Your task to perform on an android device: View the shopping cart on bestbuy.com. Search for "razer blade" on bestbuy.com, select the first entry, add it to the cart, then select checkout. Image 0: 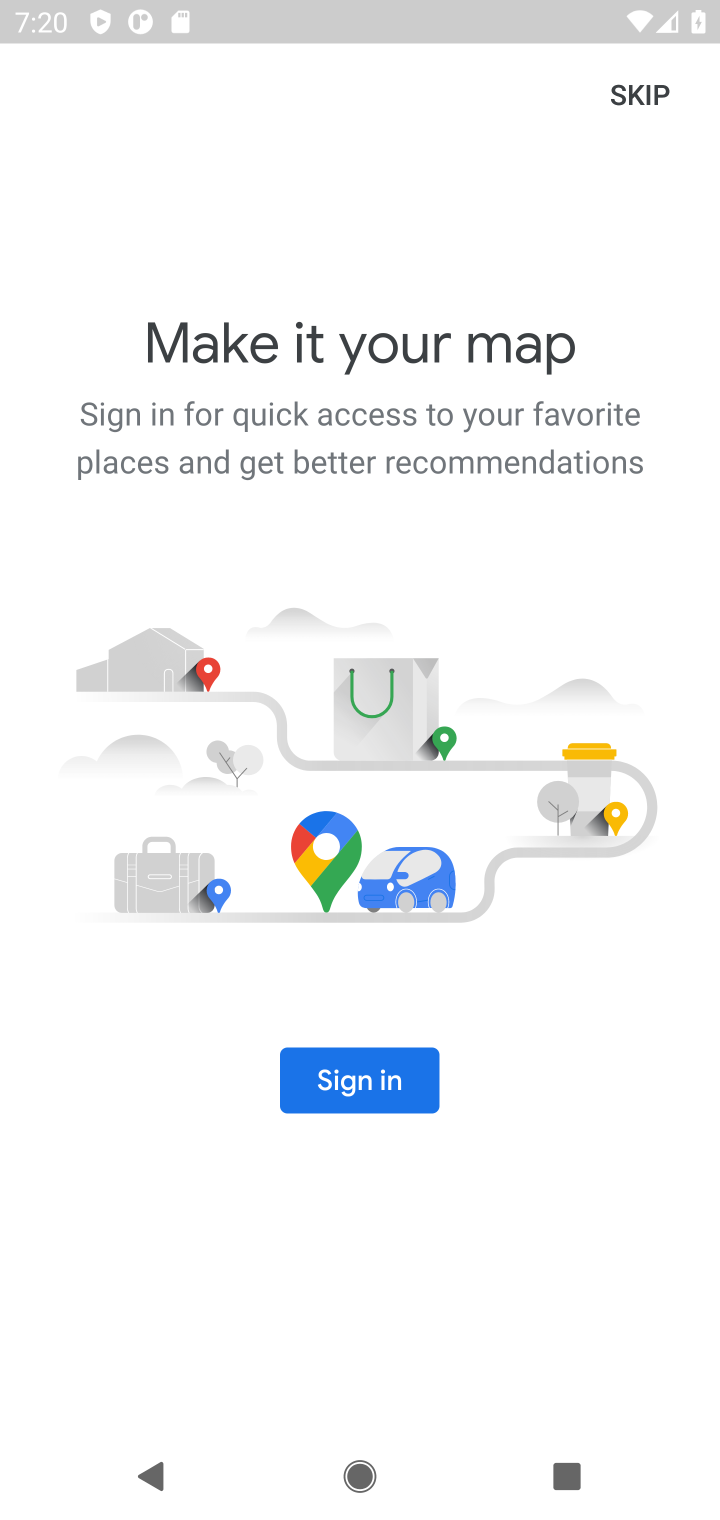
Step 0: press home button
Your task to perform on an android device: View the shopping cart on bestbuy.com. Search for "razer blade" on bestbuy.com, select the first entry, add it to the cart, then select checkout. Image 1: 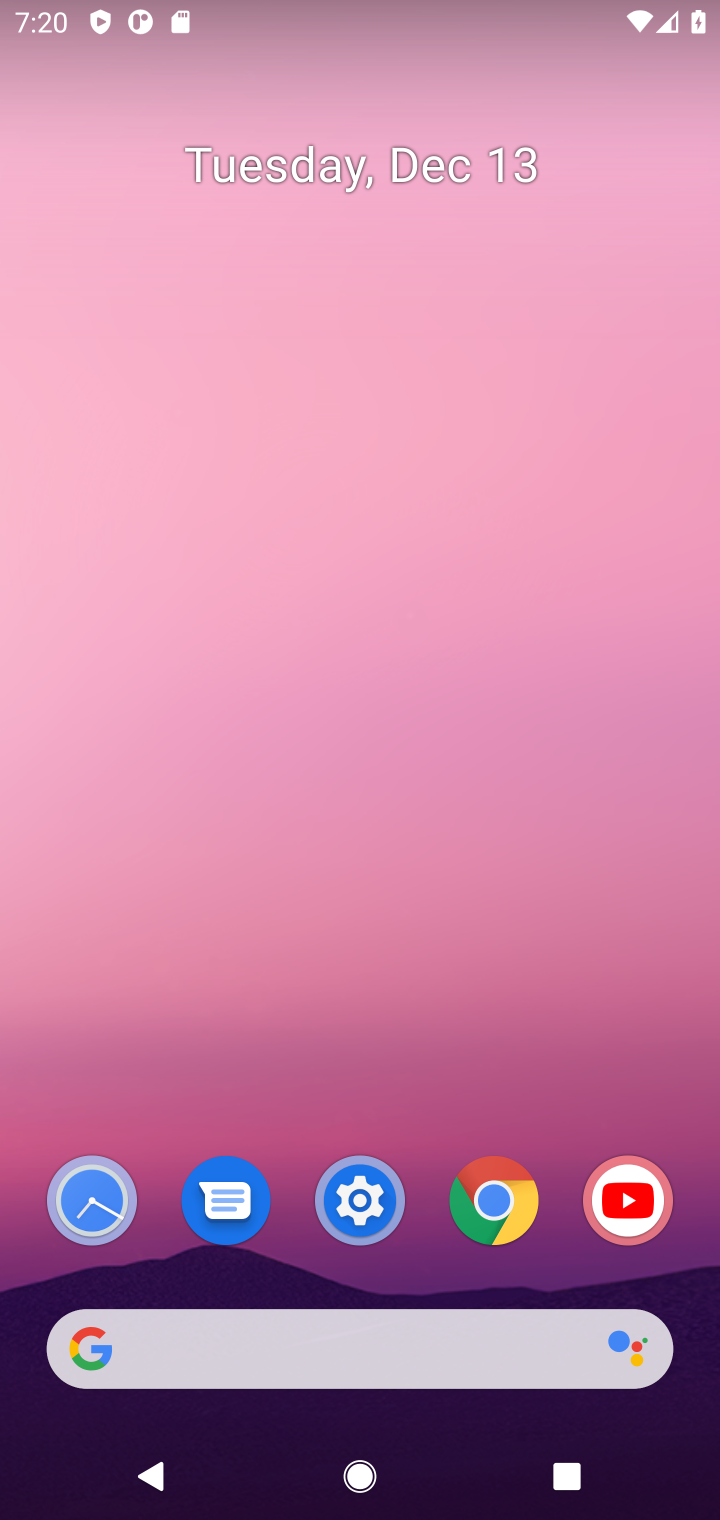
Step 1: drag from (321, 1180) to (322, 391)
Your task to perform on an android device: View the shopping cart on bestbuy.com. Search for "razer blade" on bestbuy.com, select the first entry, add it to the cart, then select checkout. Image 2: 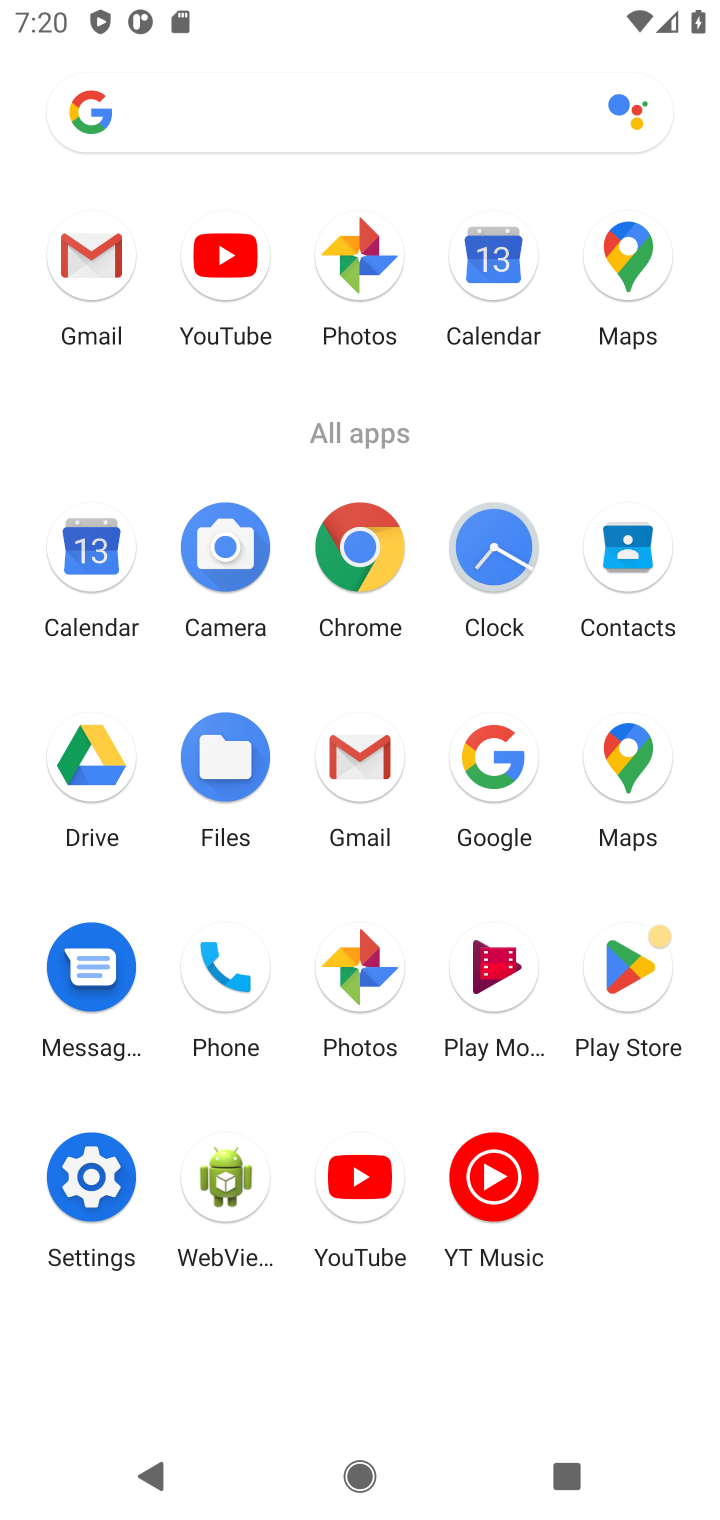
Step 2: click (364, 612)
Your task to perform on an android device: View the shopping cart on bestbuy.com. Search for "razer blade" on bestbuy.com, select the first entry, add it to the cart, then select checkout. Image 3: 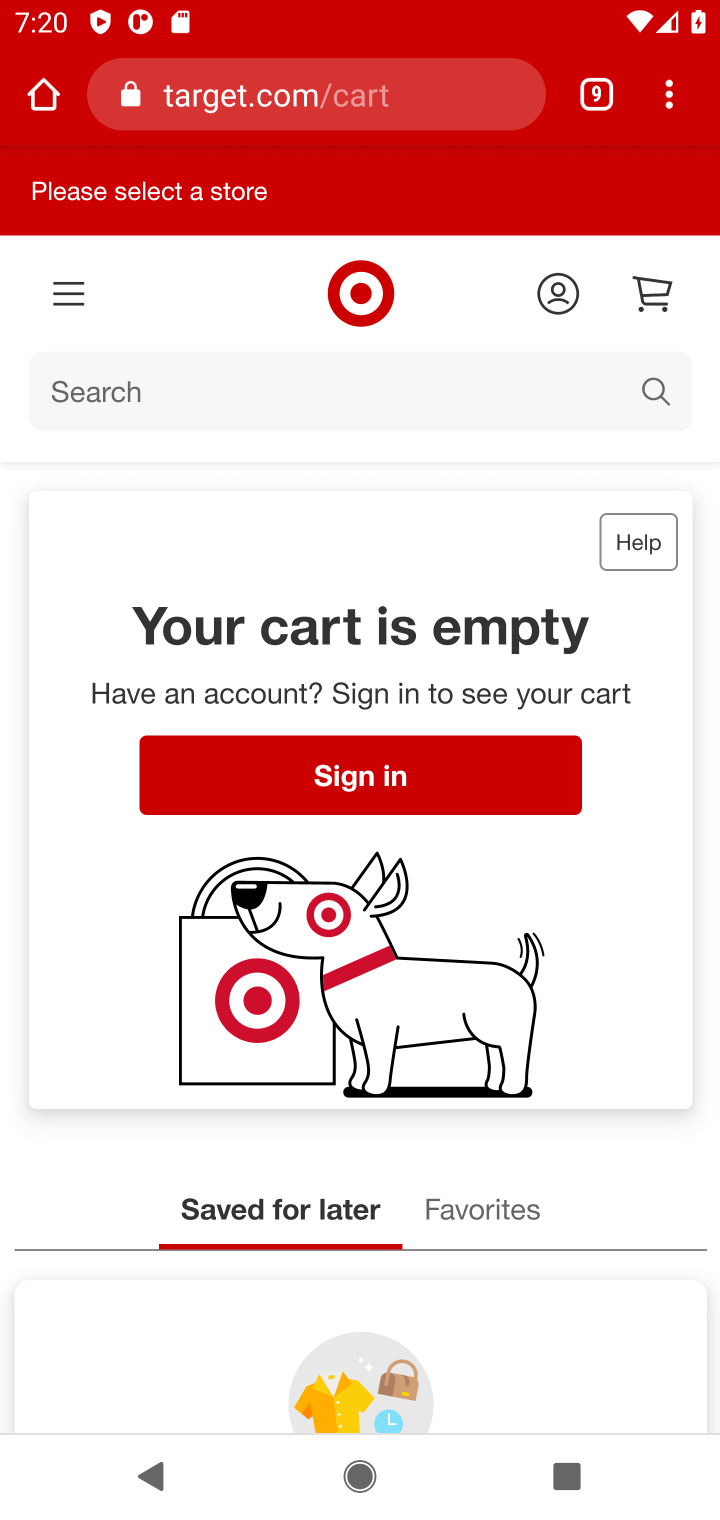
Step 3: click (295, 112)
Your task to perform on an android device: View the shopping cart on bestbuy.com. Search for "razer blade" on bestbuy.com, select the first entry, add it to the cart, then select checkout. Image 4: 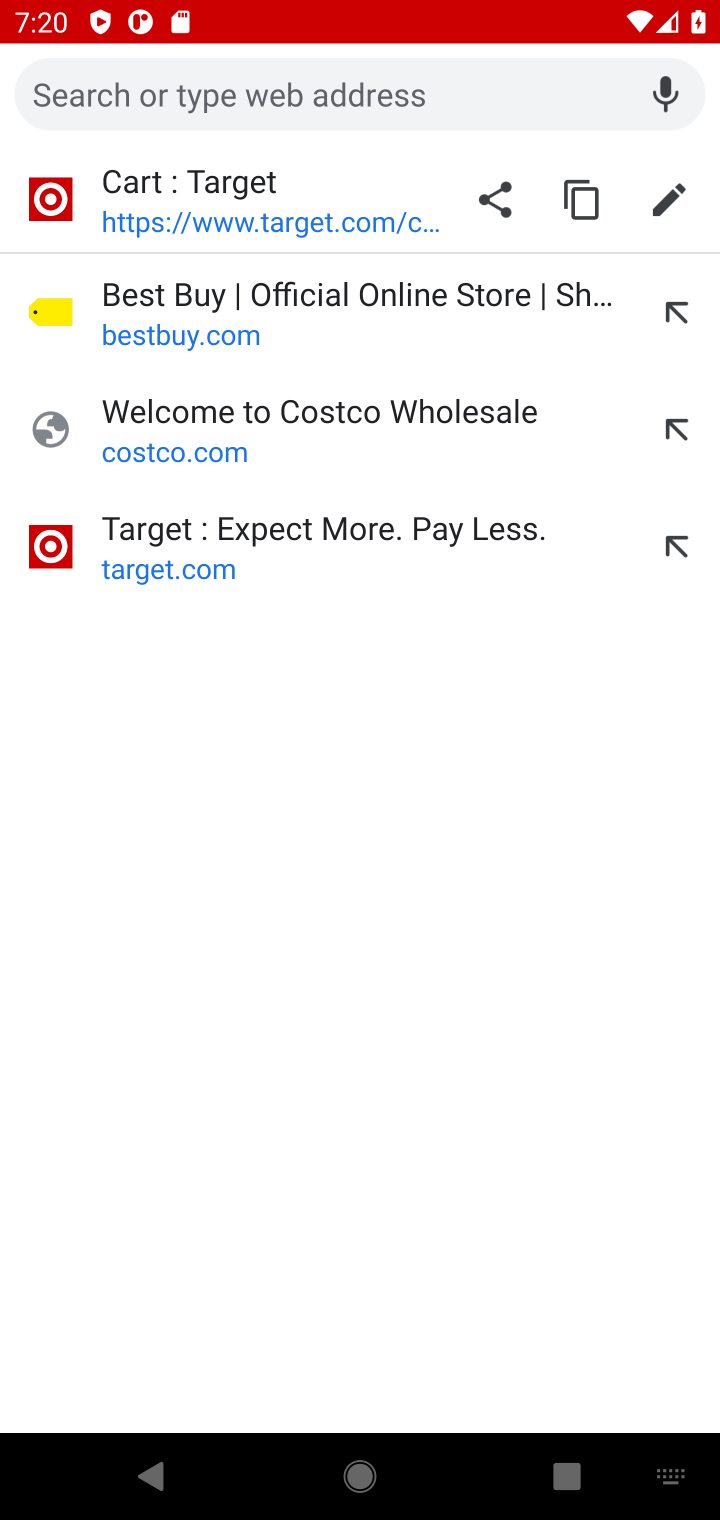
Step 4: type "bestbuy.com"
Your task to perform on an android device: View the shopping cart on bestbuy.com. Search for "razer blade" on bestbuy.com, select the first entry, add it to the cart, then select checkout. Image 5: 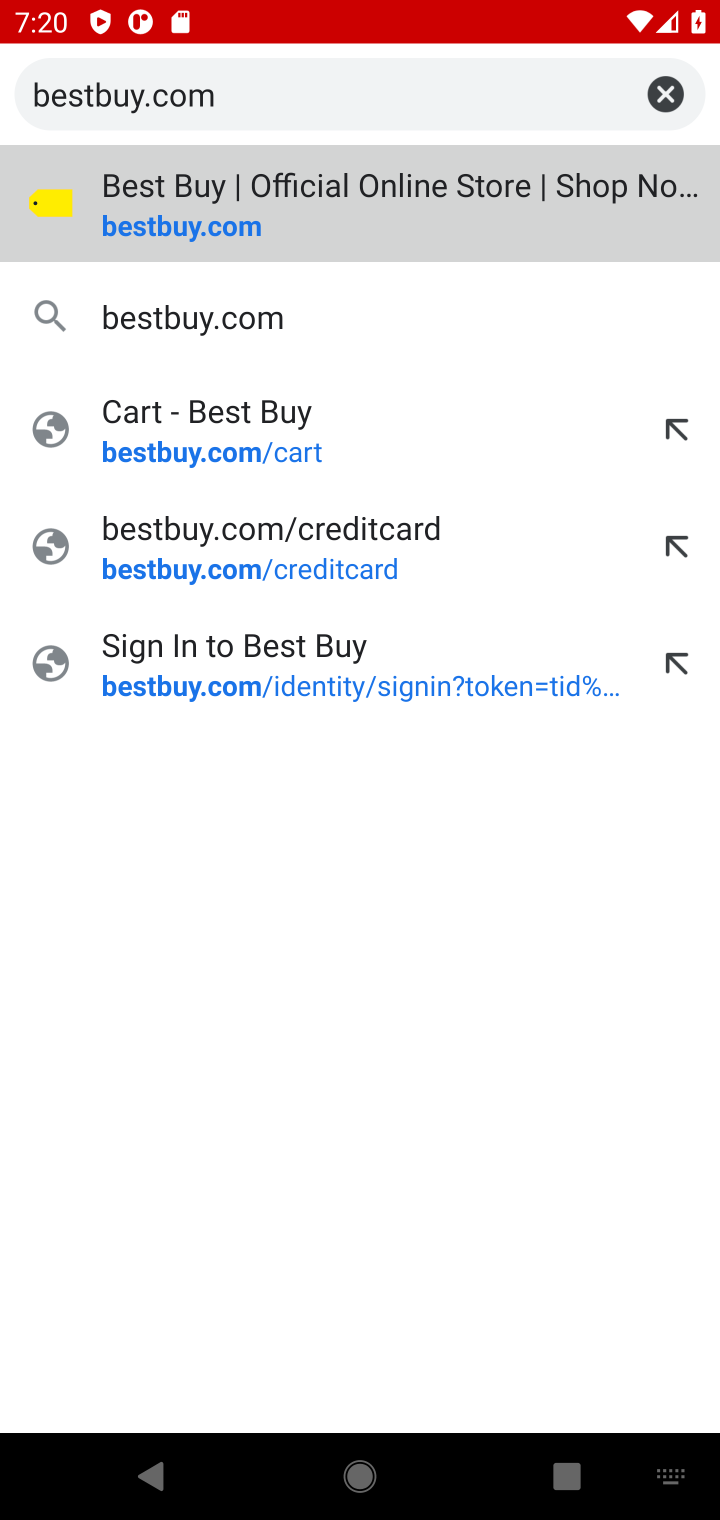
Step 5: click (145, 212)
Your task to perform on an android device: View the shopping cart on bestbuy.com. Search for "razer blade" on bestbuy.com, select the first entry, add it to the cart, then select checkout. Image 6: 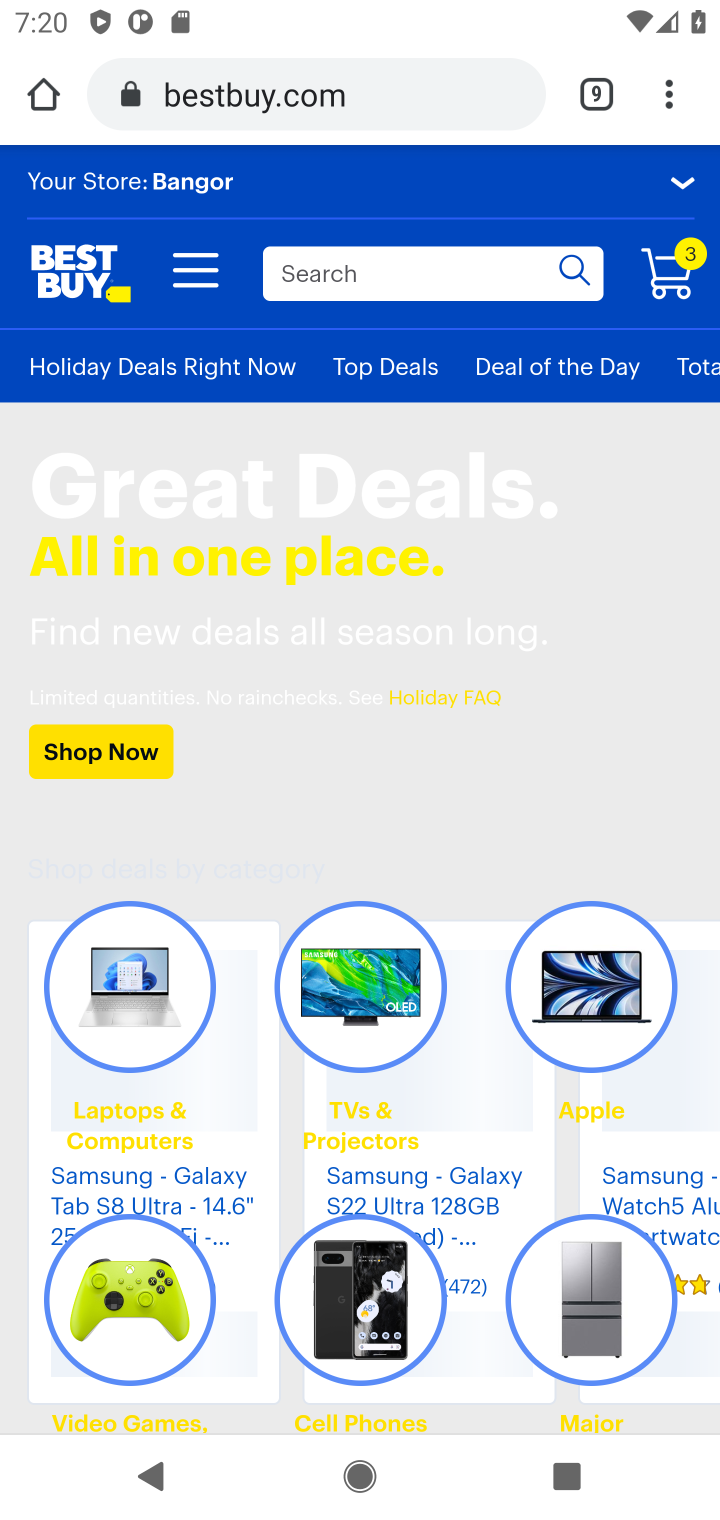
Step 6: click (667, 256)
Your task to perform on an android device: View the shopping cart on bestbuy.com. Search for "razer blade" on bestbuy.com, select the first entry, add it to the cart, then select checkout. Image 7: 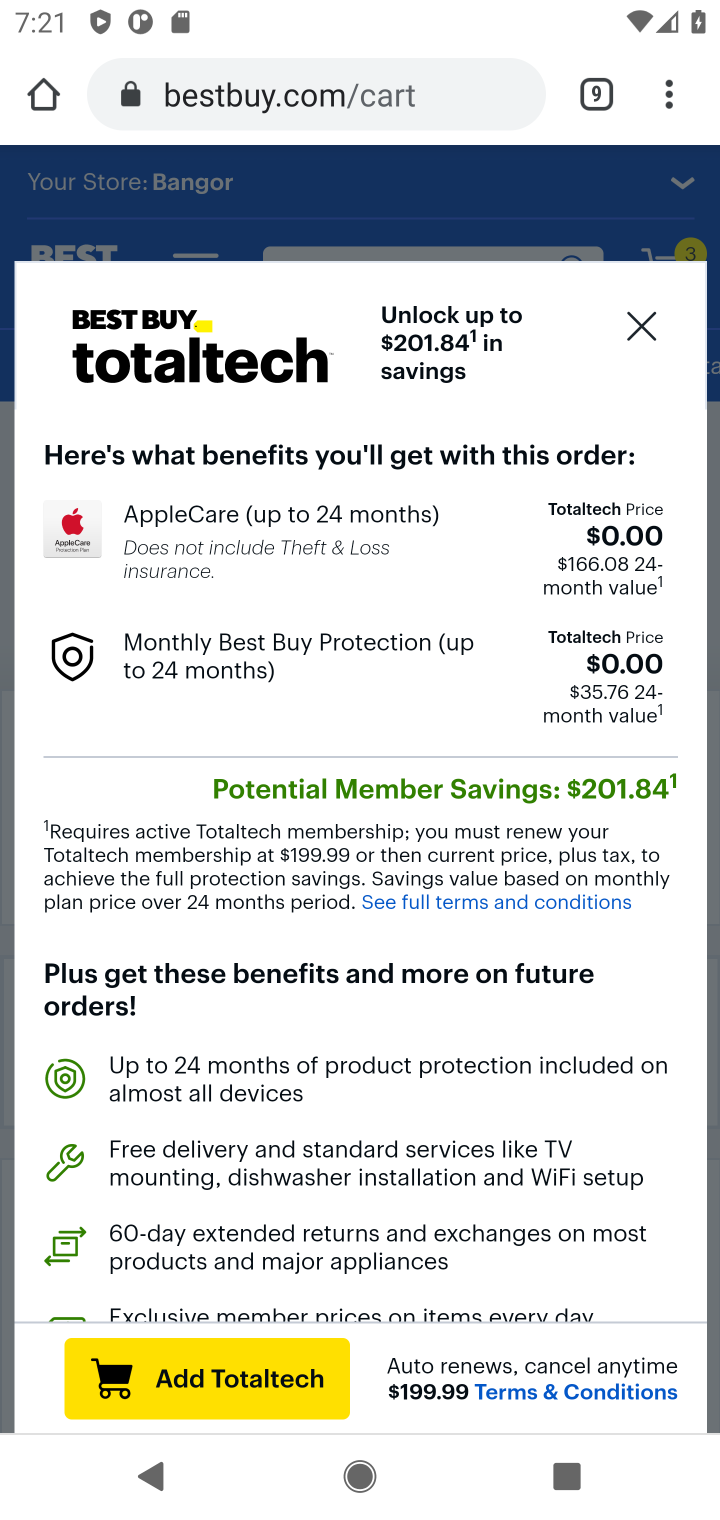
Step 7: click (631, 334)
Your task to perform on an android device: View the shopping cart on bestbuy.com. Search for "razer blade" on bestbuy.com, select the first entry, add it to the cart, then select checkout. Image 8: 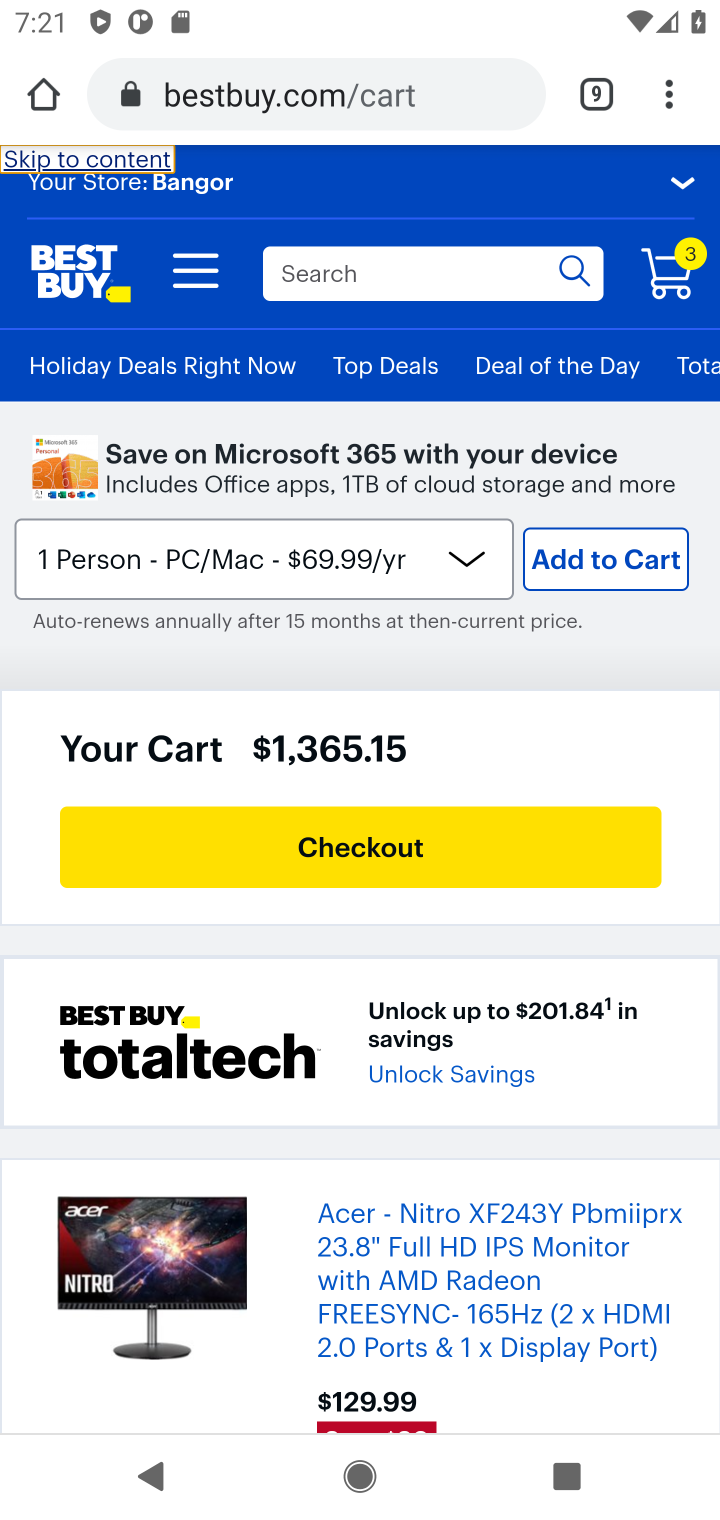
Step 8: click (493, 257)
Your task to perform on an android device: View the shopping cart on bestbuy.com. Search for "razer blade" on bestbuy.com, select the first entry, add it to the cart, then select checkout. Image 9: 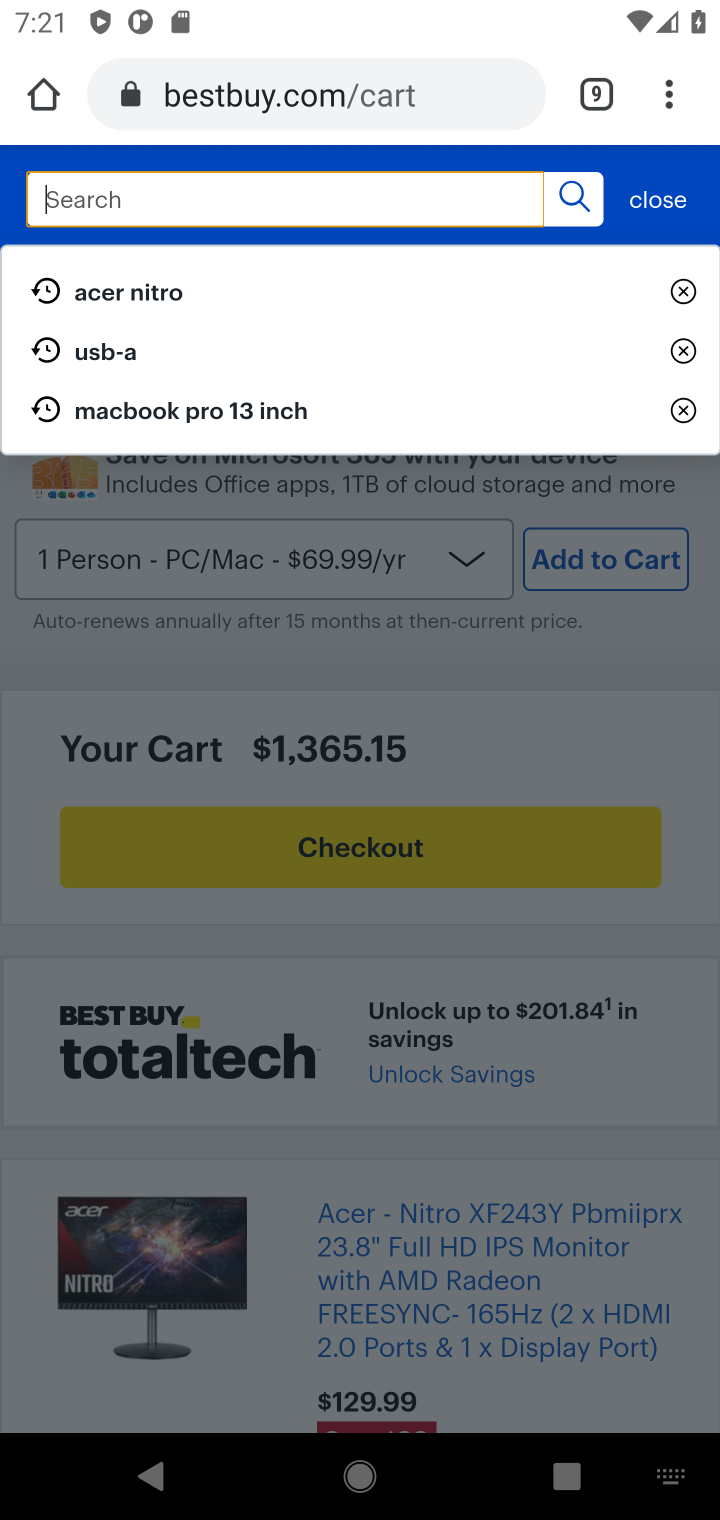
Step 9: type "razer blade"
Your task to perform on an android device: View the shopping cart on bestbuy.com. Search for "razer blade" on bestbuy.com, select the first entry, add it to the cart, then select checkout. Image 10: 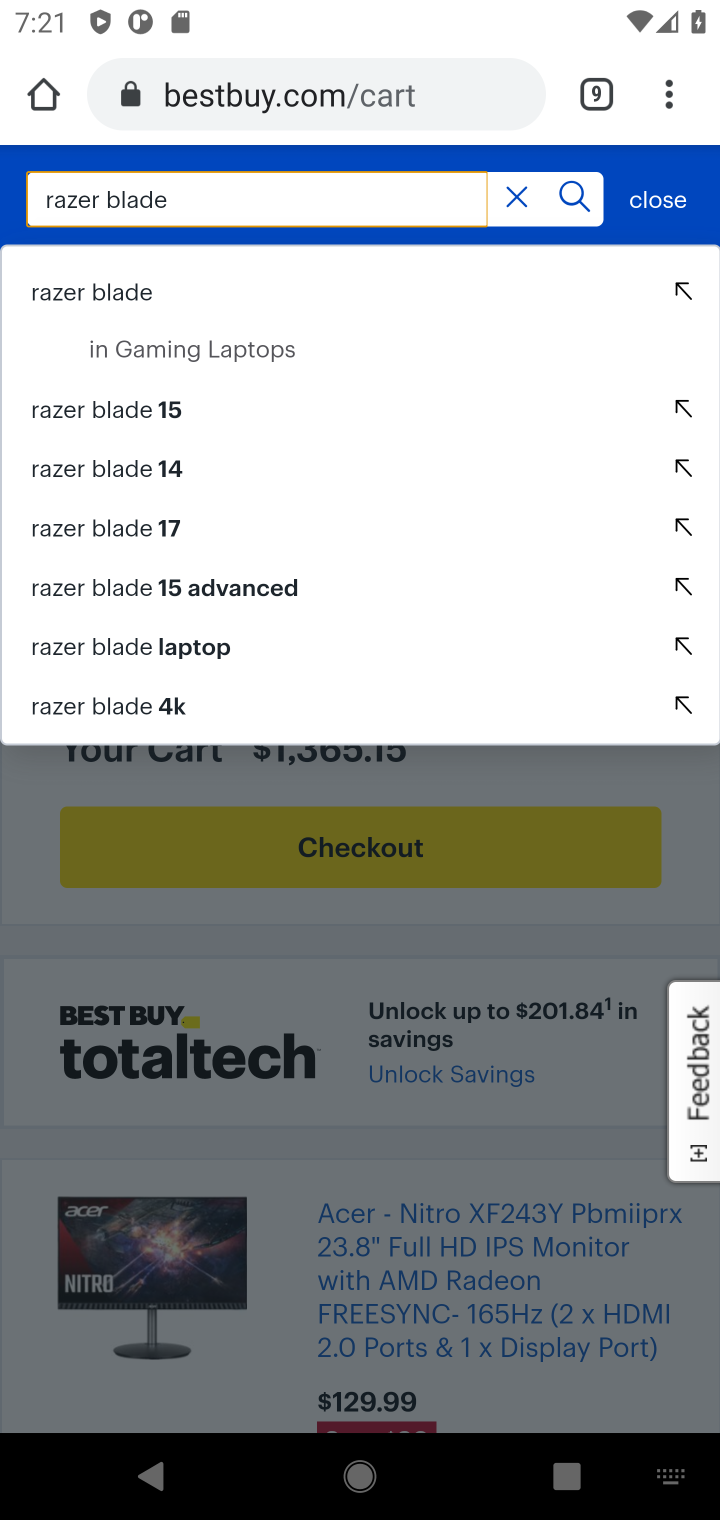
Step 10: click (141, 291)
Your task to perform on an android device: View the shopping cart on bestbuy.com. Search for "razer blade" on bestbuy.com, select the first entry, add it to the cart, then select checkout. Image 11: 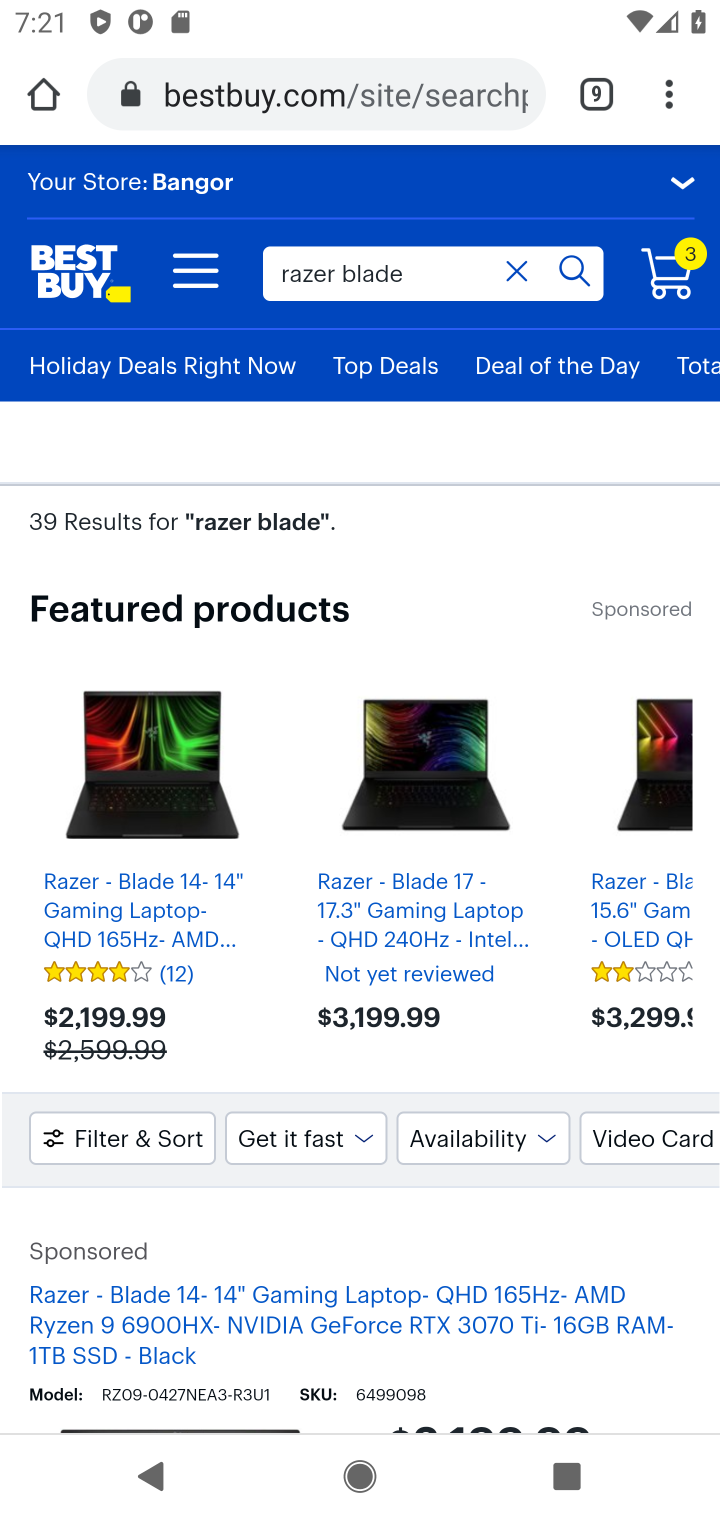
Step 11: click (139, 904)
Your task to perform on an android device: View the shopping cart on bestbuy.com. Search for "razer blade" on bestbuy.com, select the first entry, add it to the cart, then select checkout. Image 12: 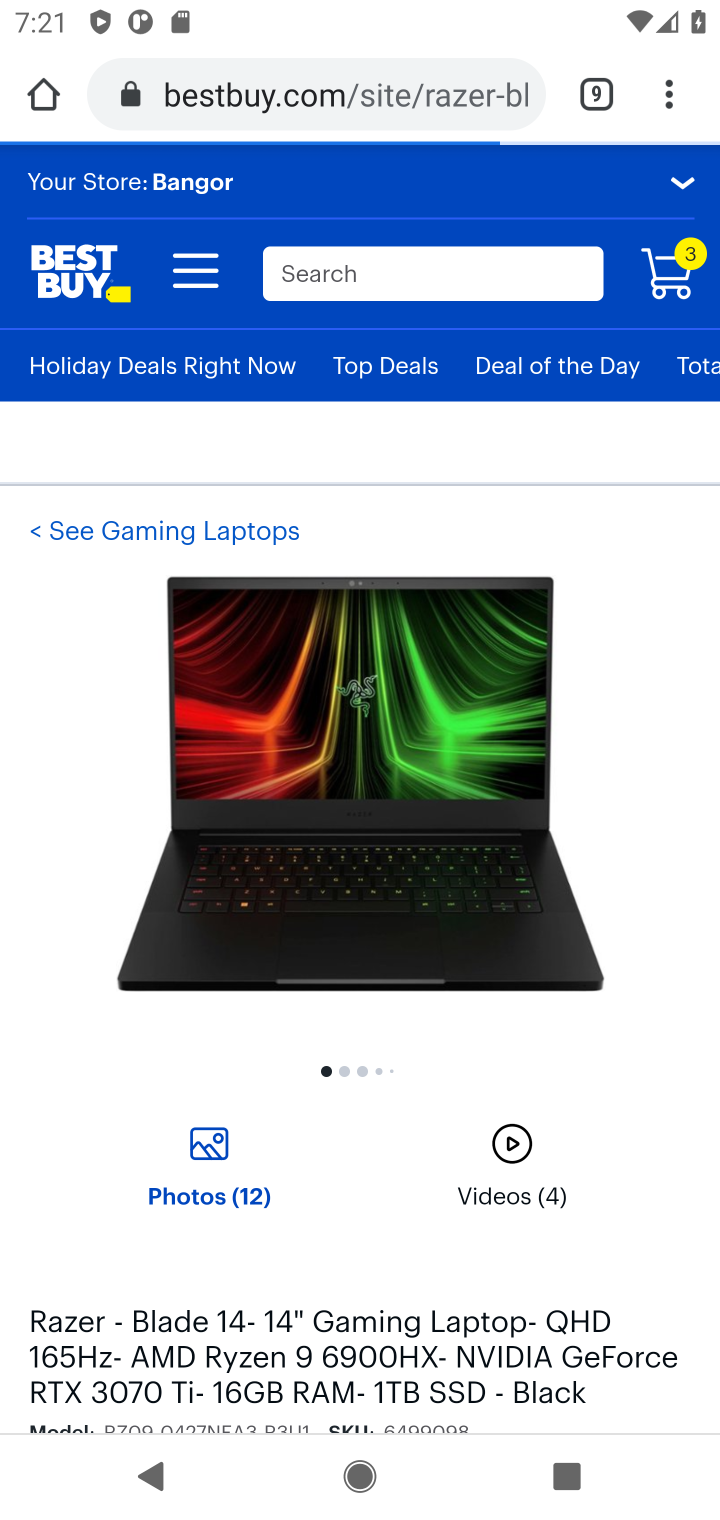
Step 12: drag from (307, 1122) to (370, 273)
Your task to perform on an android device: View the shopping cart on bestbuy.com. Search for "razer blade" on bestbuy.com, select the first entry, add it to the cart, then select checkout. Image 13: 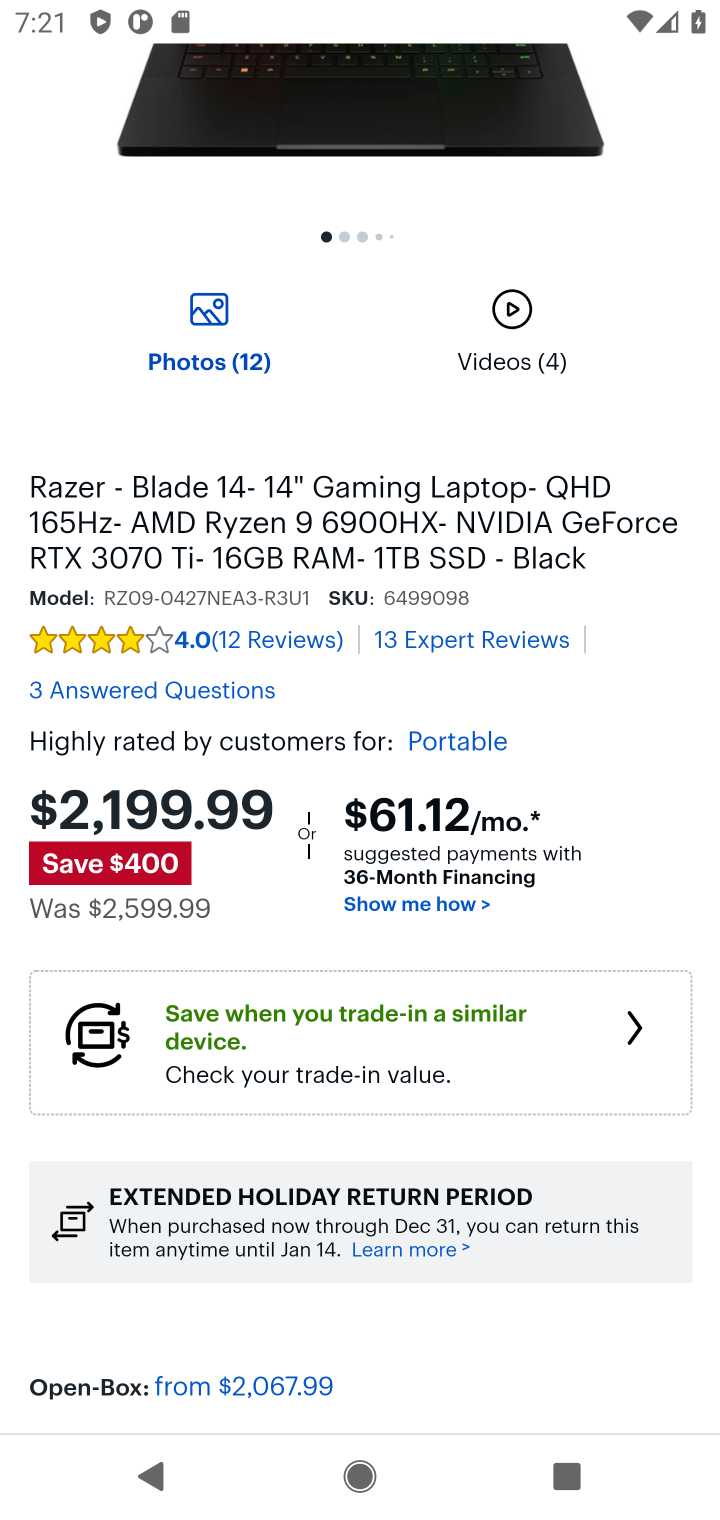
Step 13: drag from (353, 941) to (410, 227)
Your task to perform on an android device: View the shopping cart on bestbuy.com. Search for "razer blade" on bestbuy.com, select the first entry, add it to the cart, then select checkout. Image 14: 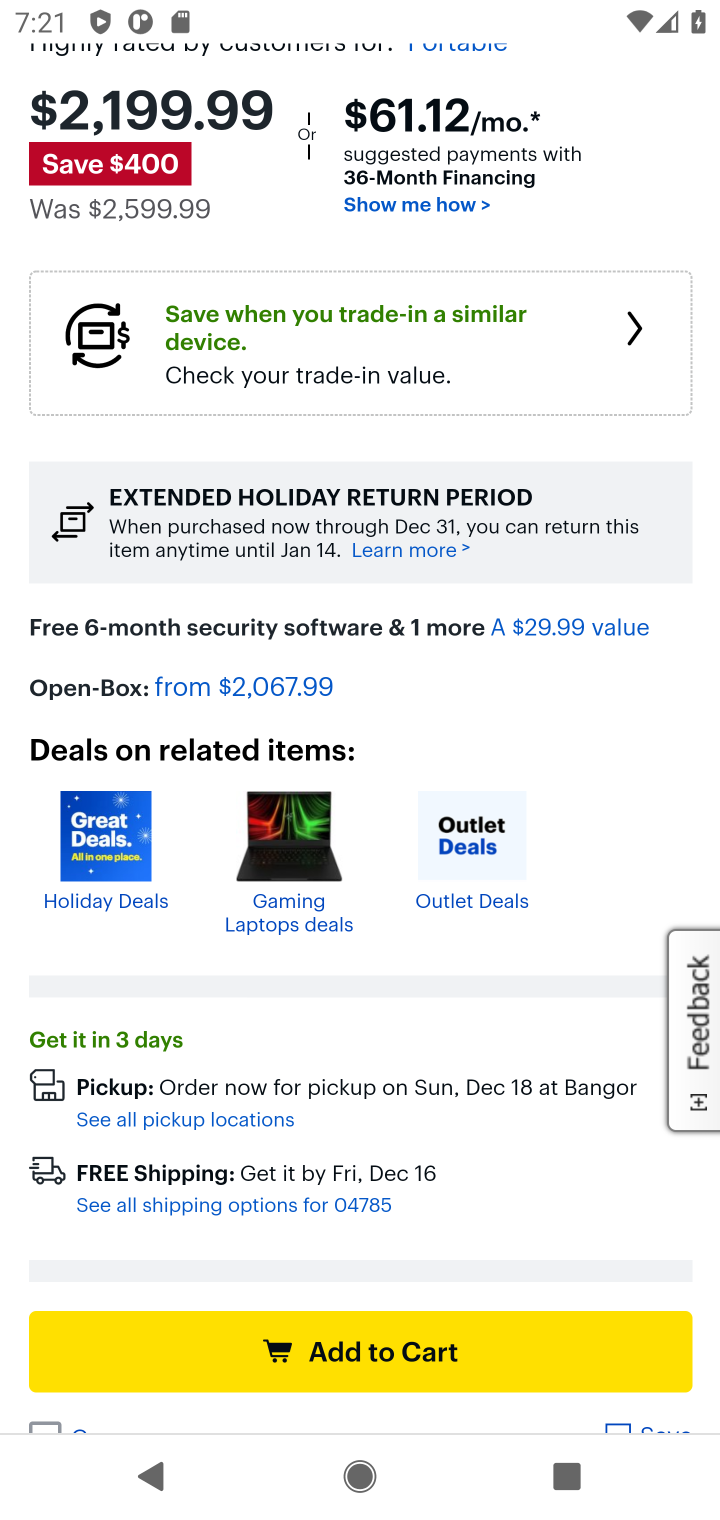
Step 14: click (372, 1347)
Your task to perform on an android device: View the shopping cart on bestbuy.com. Search for "razer blade" on bestbuy.com, select the first entry, add it to the cart, then select checkout. Image 15: 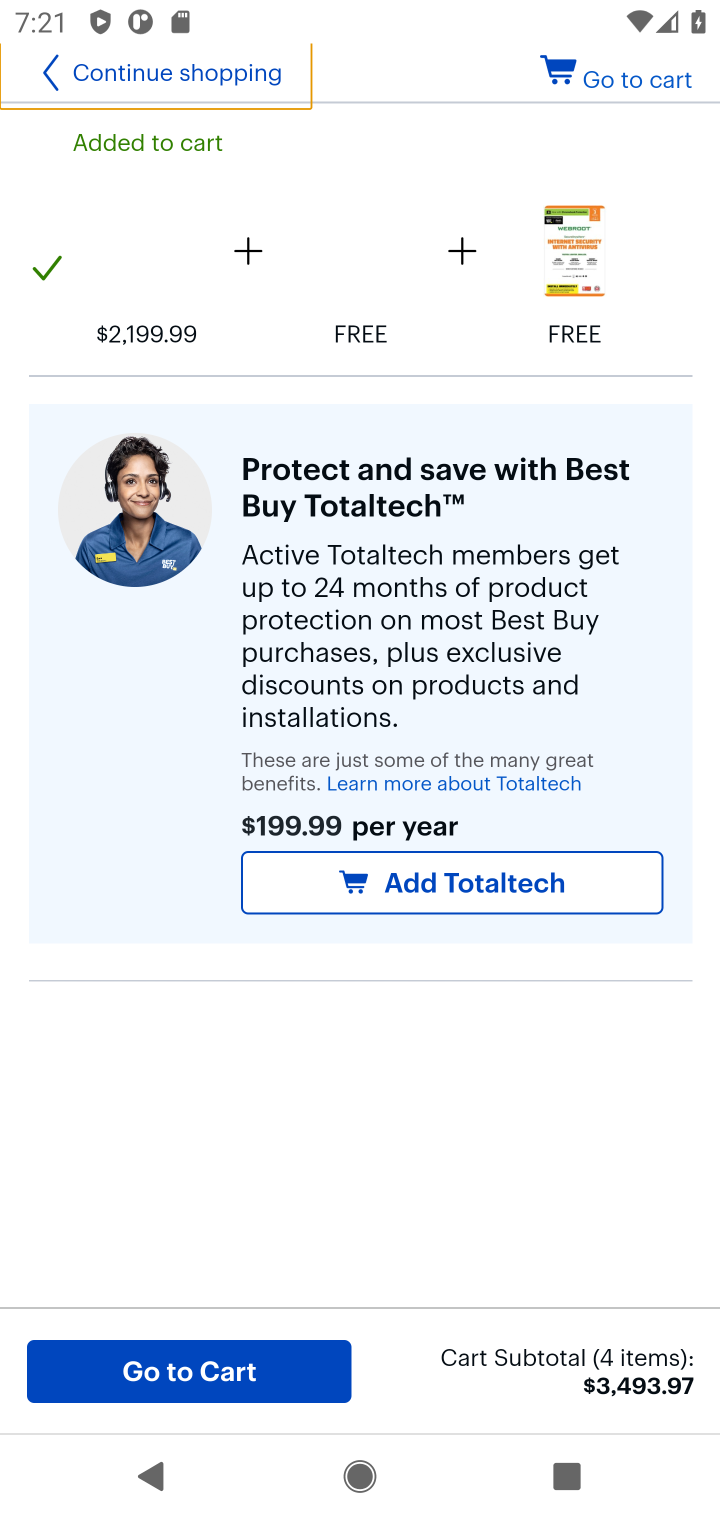
Step 15: click (601, 89)
Your task to perform on an android device: View the shopping cart on bestbuy.com. Search for "razer blade" on bestbuy.com, select the first entry, add it to the cart, then select checkout. Image 16: 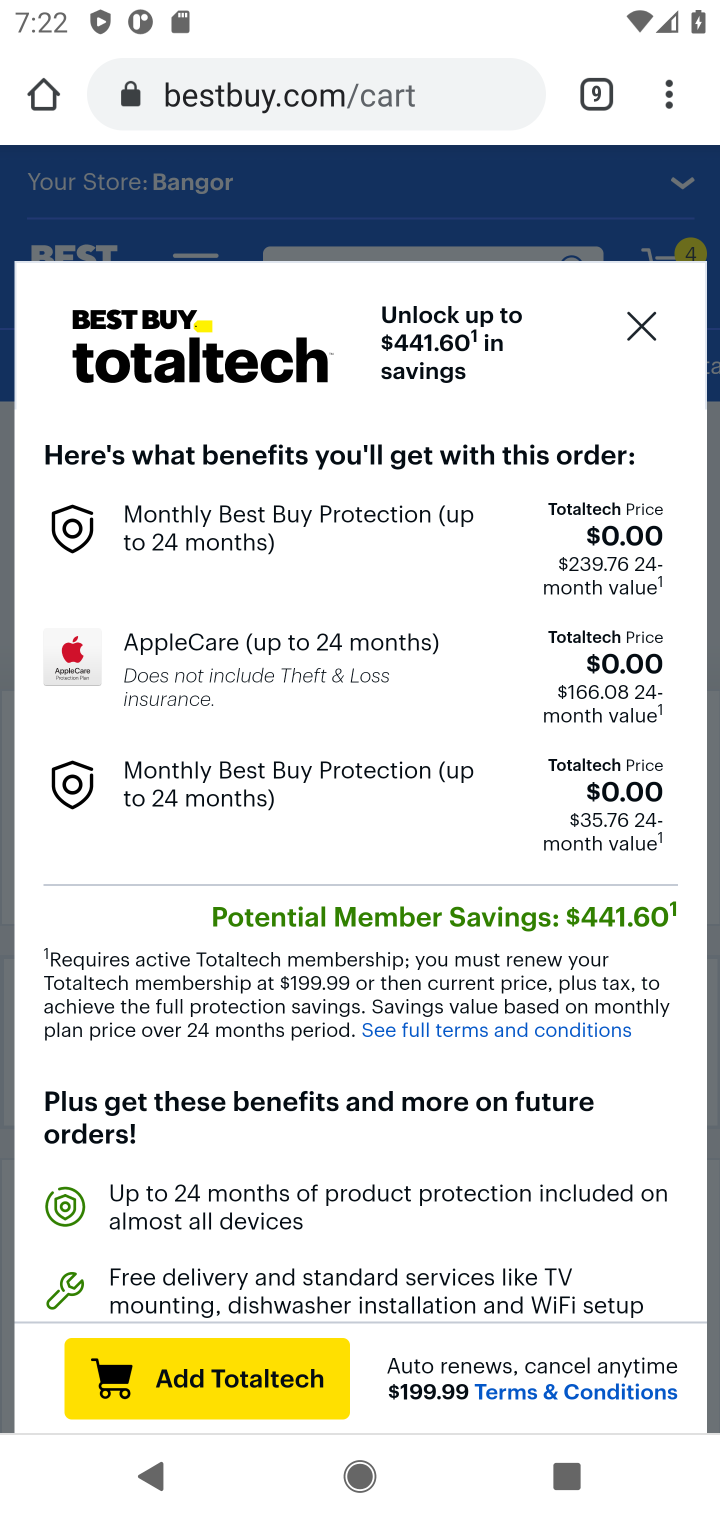
Step 16: click (349, 847)
Your task to perform on an android device: View the shopping cart on bestbuy.com. Search for "razer blade" on bestbuy.com, select the first entry, add it to the cart, then select checkout. Image 17: 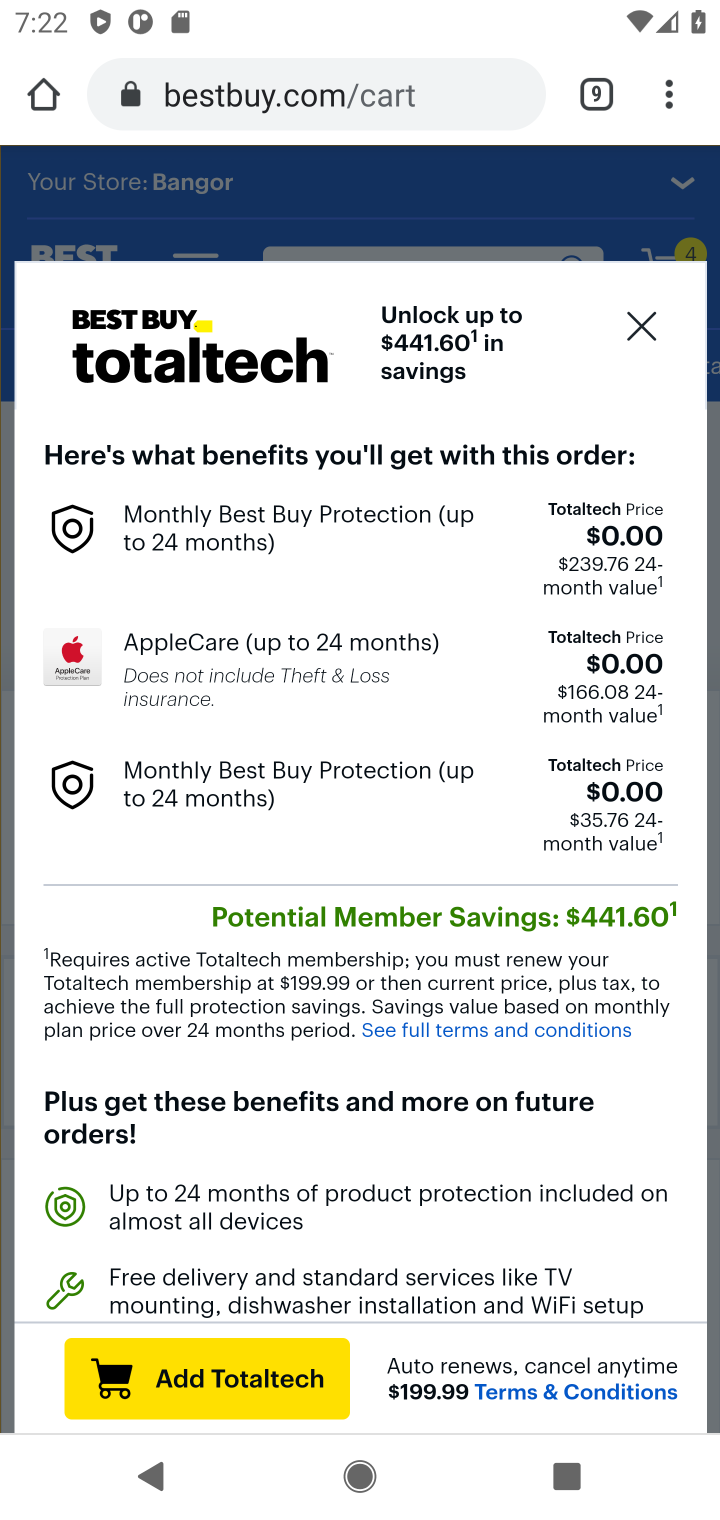
Step 17: click (630, 320)
Your task to perform on an android device: View the shopping cart on bestbuy.com. Search for "razer blade" on bestbuy.com, select the first entry, add it to the cart, then select checkout. Image 18: 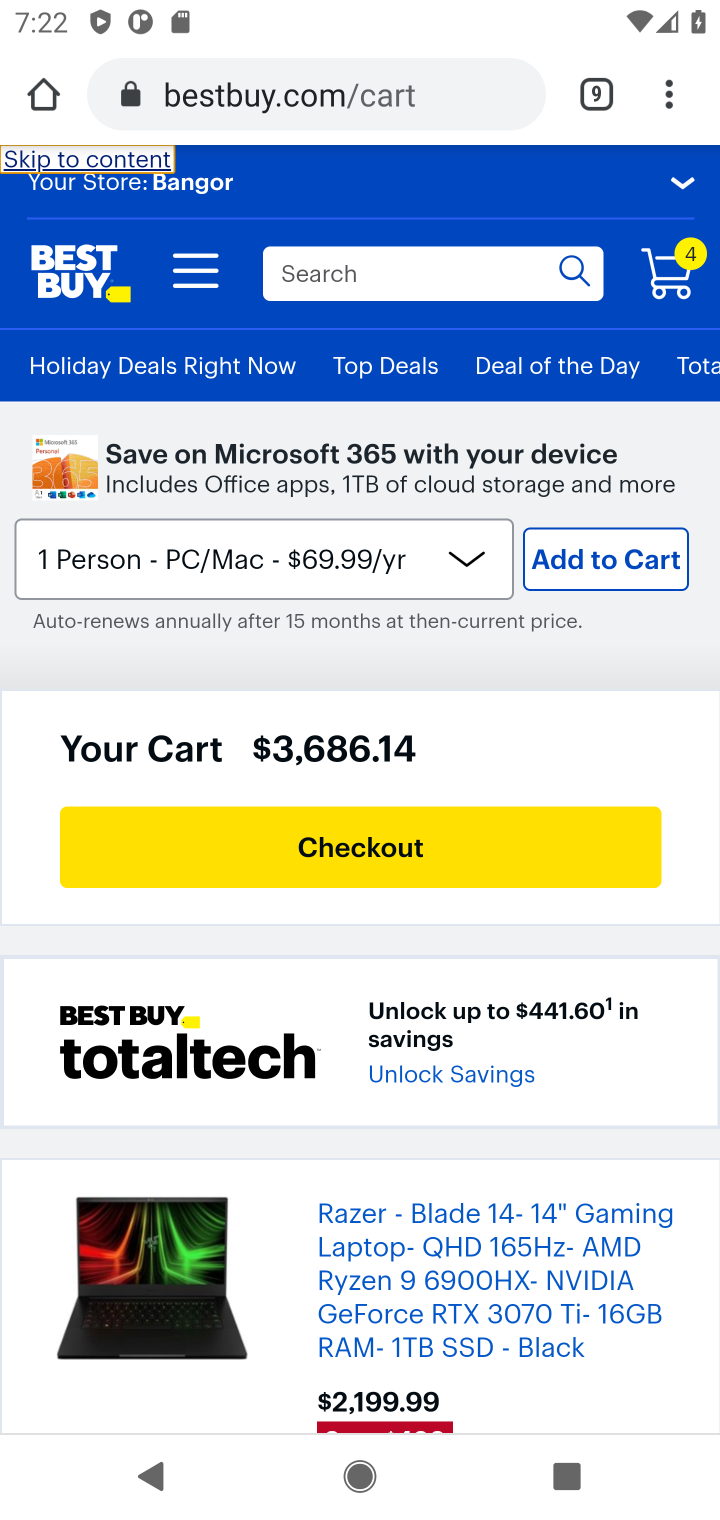
Step 18: click (390, 833)
Your task to perform on an android device: View the shopping cart on bestbuy.com. Search for "razer blade" on bestbuy.com, select the first entry, add it to the cart, then select checkout. Image 19: 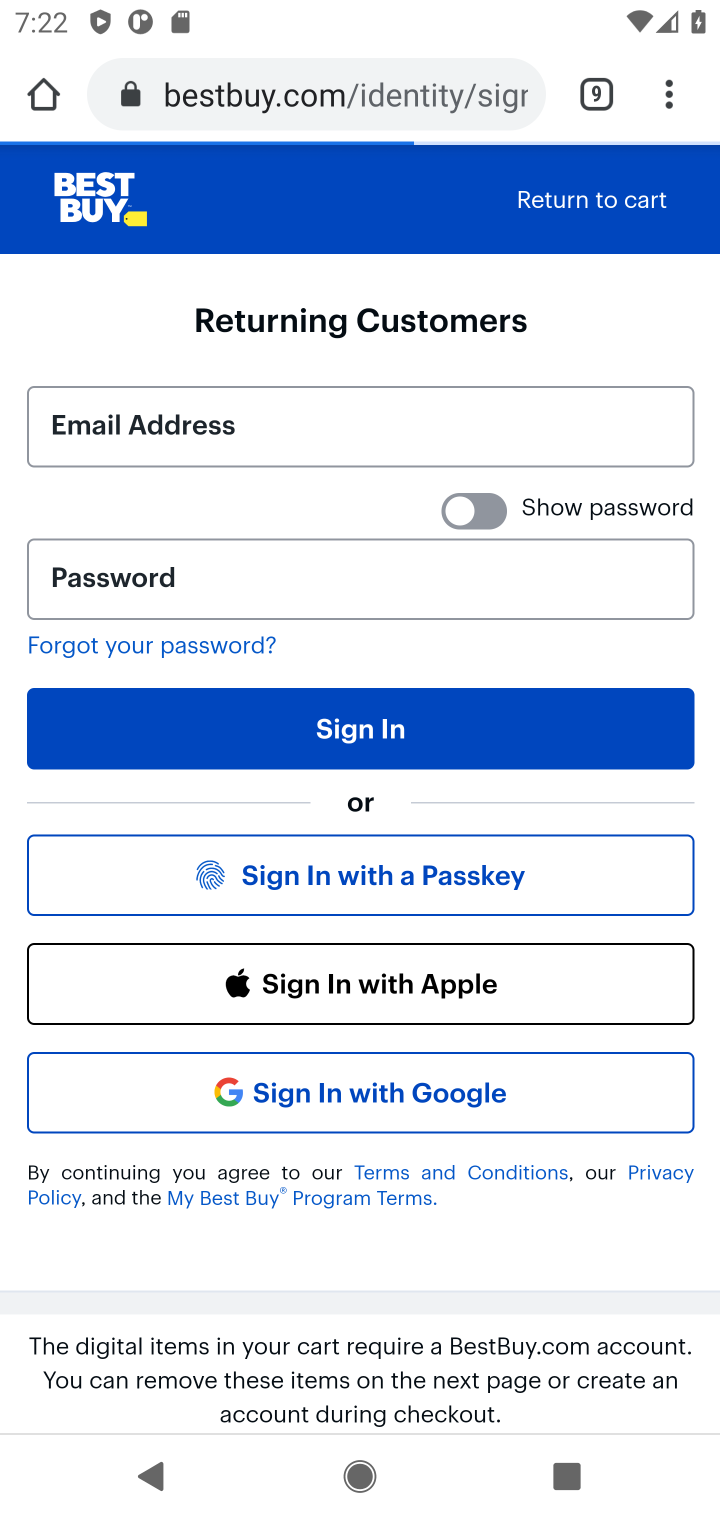
Step 19: task complete